Your task to perform on an android device: Open Amazon Image 0: 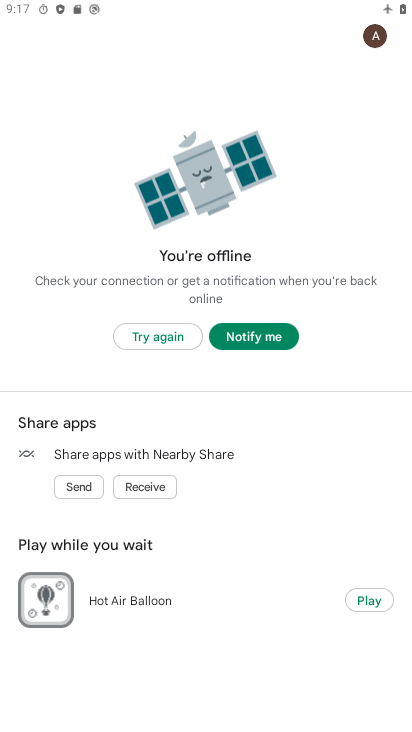
Step 0: press home button
Your task to perform on an android device: Open Amazon Image 1: 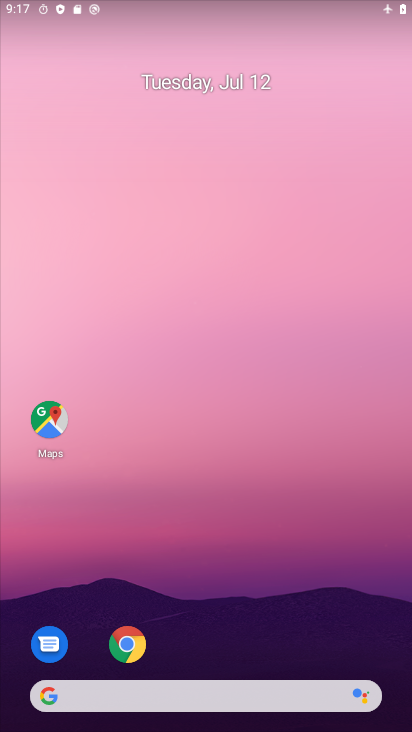
Step 1: click (141, 648)
Your task to perform on an android device: Open Amazon Image 2: 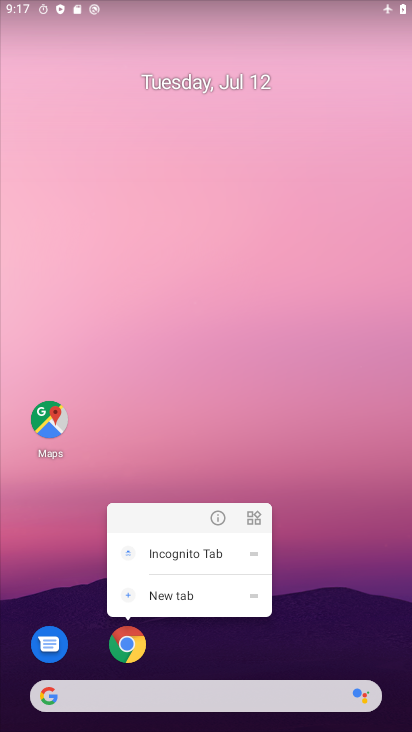
Step 2: click (124, 642)
Your task to perform on an android device: Open Amazon Image 3: 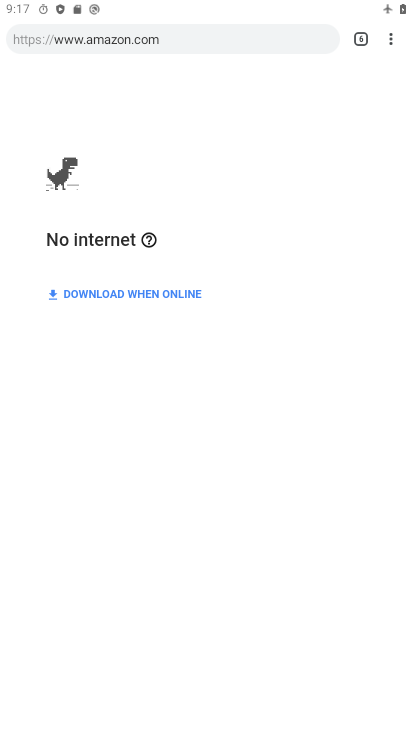
Step 3: click (363, 30)
Your task to perform on an android device: Open Amazon Image 4: 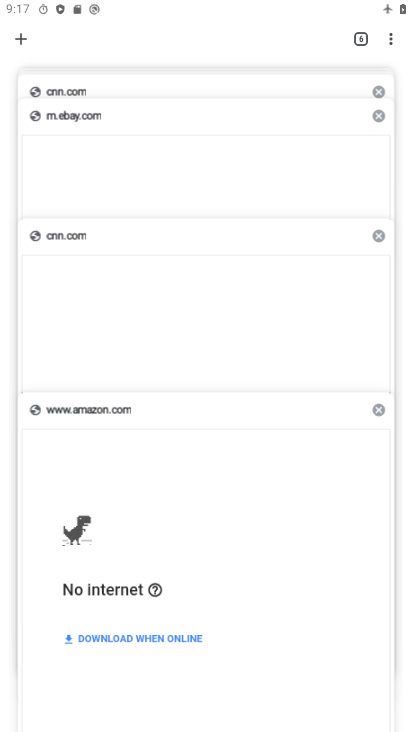
Step 4: click (30, 42)
Your task to perform on an android device: Open Amazon Image 5: 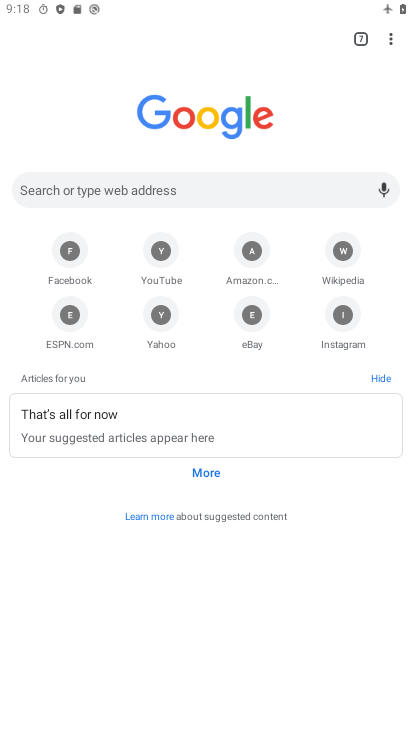
Step 5: click (250, 254)
Your task to perform on an android device: Open Amazon Image 6: 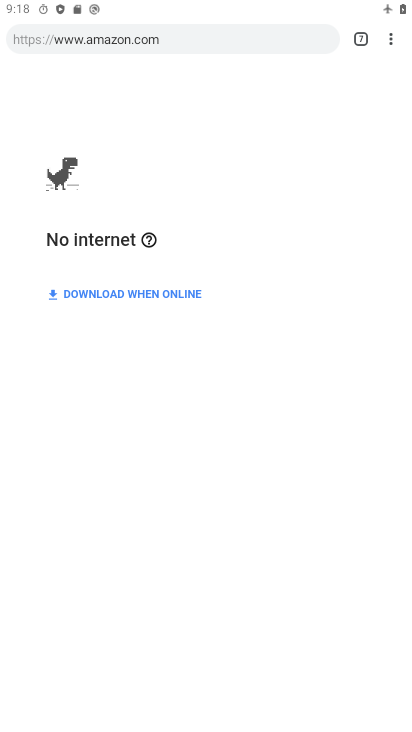
Step 6: task complete